Your task to perform on an android device: Clear the shopping cart on costco.com. Add "lenovo thinkpad" to the cart on costco.com, then select checkout. Image 0: 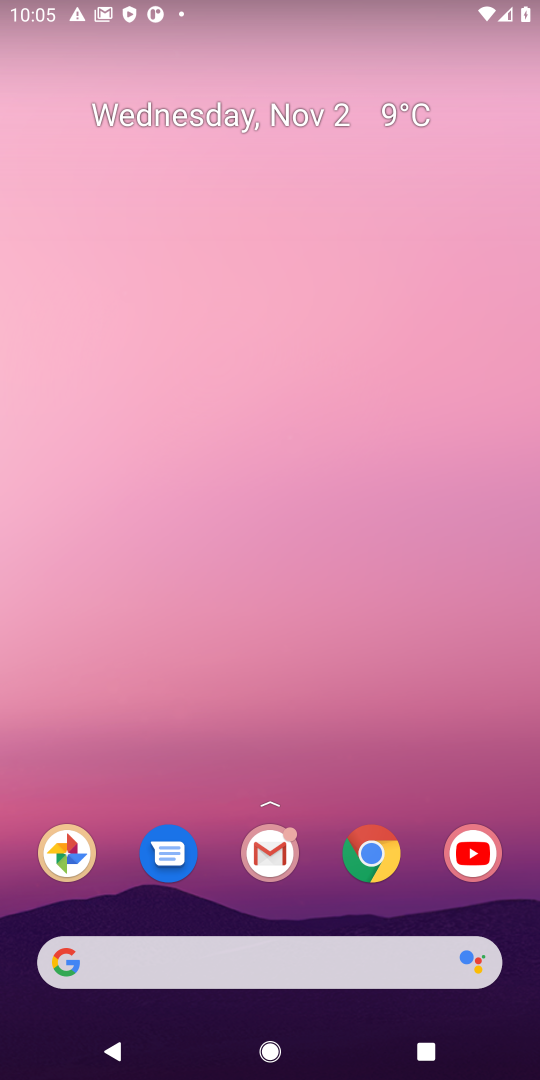
Step 0: click (371, 850)
Your task to perform on an android device: Clear the shopping cart on costco.com. Add "lenovo thinkpad" to the cart on costco.com, then select checkout. Image 1: 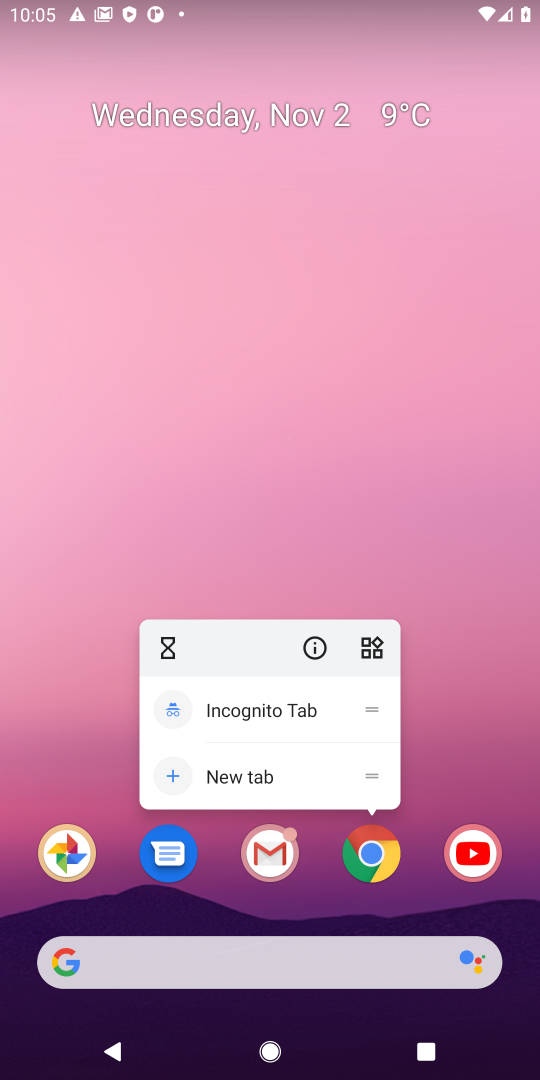
Step 1: click (366, 857)
Your task to perform on an android device: Clear the shopping cart on costco.com. Add "lenovo thinkpad" to the cart on costco.com, then select checkout. Image 2: 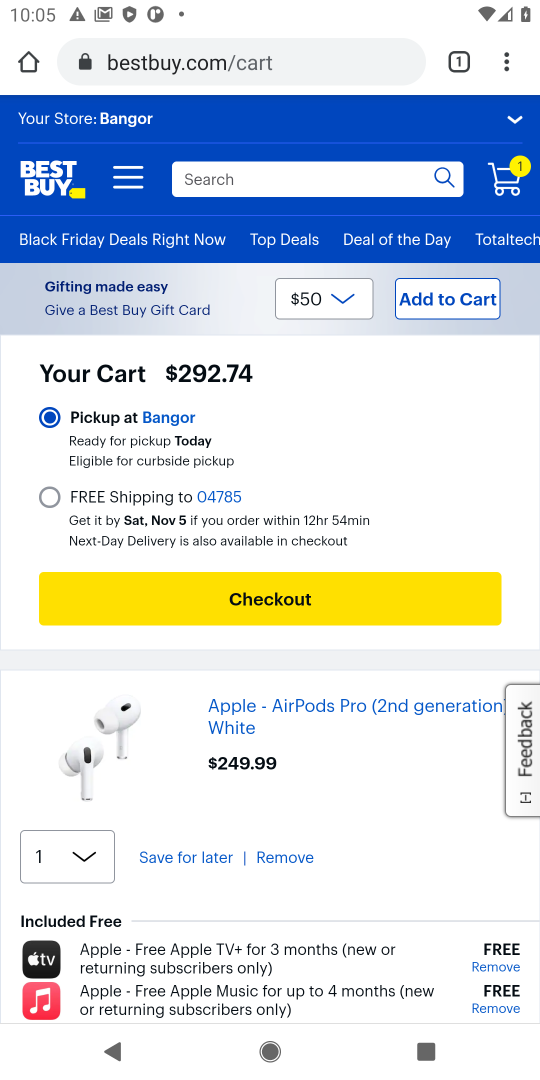
Step 2: click (281, 55)
Your task to perform on an android device: Clear the shopping cart on costco.com. Add "lenovo thinkpad" to the cart on costco.com, then select checkout. Image 3: 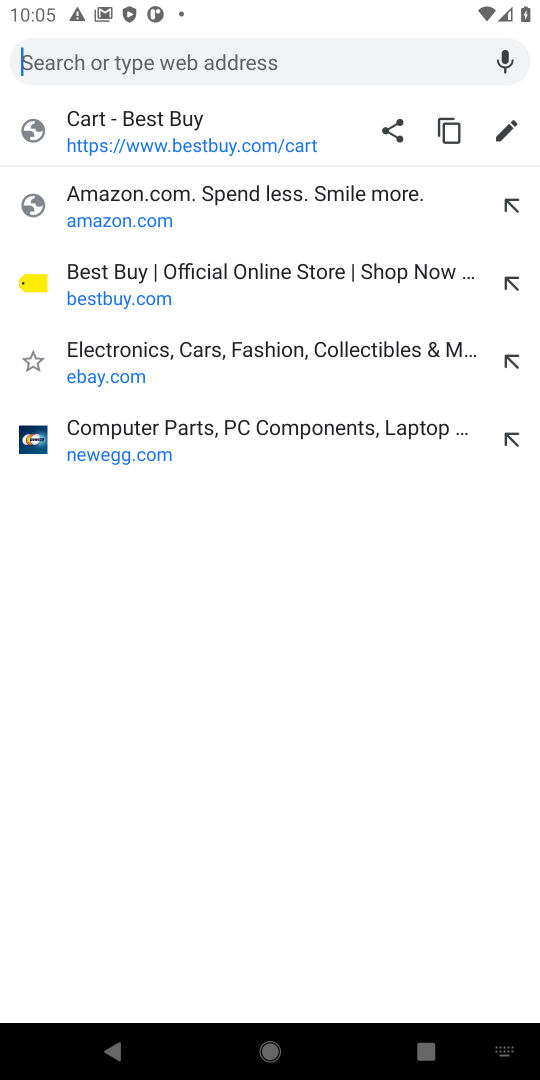
Step 3: type "costco.com"
Your task to perform on an android device: Clear the shopping cart on costco.com. Add "lenovo thinkpad" to the cart on costco.com, then select checkout. Image 4: 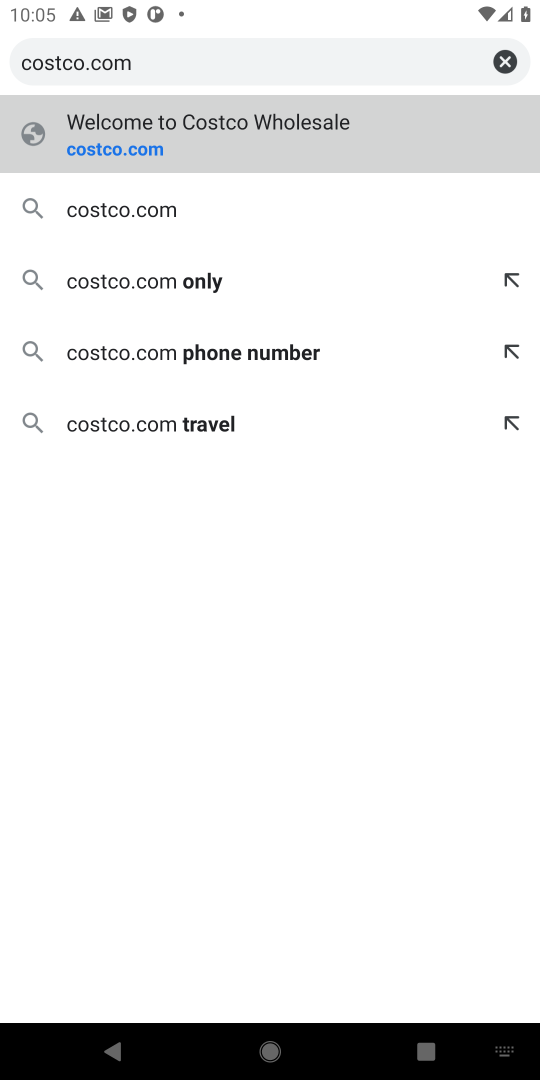
Step 4: press enter
Your task to perform on an android device: Clear the shopping cart on costco.com. Add "lenovo thinkpad" to the cart on costco.com, then select checkout. Image 5: 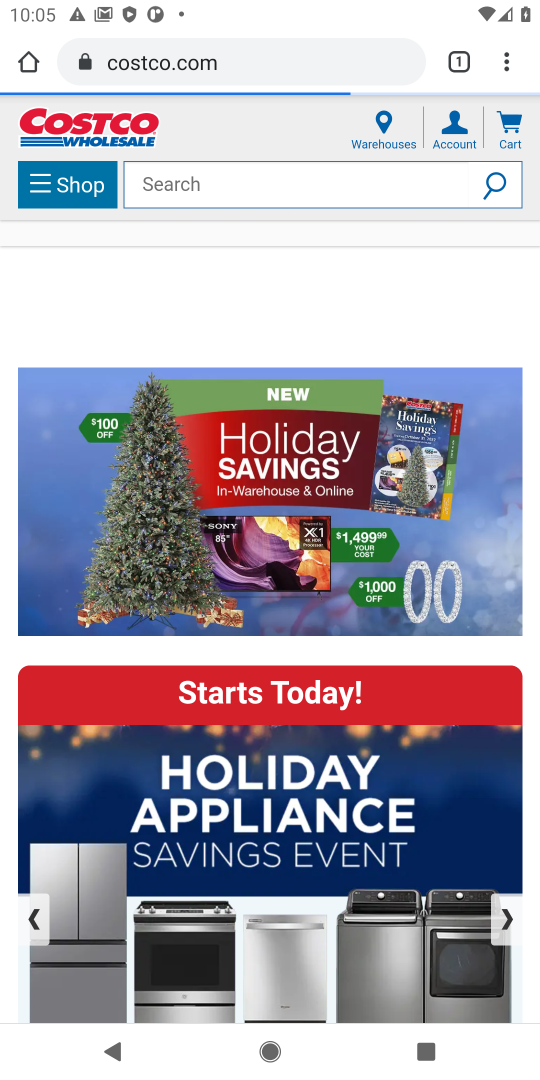
Step 5: click (229, 189)
Your task to perform on an android device: Clear the shopping cart on costco.com. Add "lenovo thinkpad" to the cart on costco.com, then select checkout. Image 6: 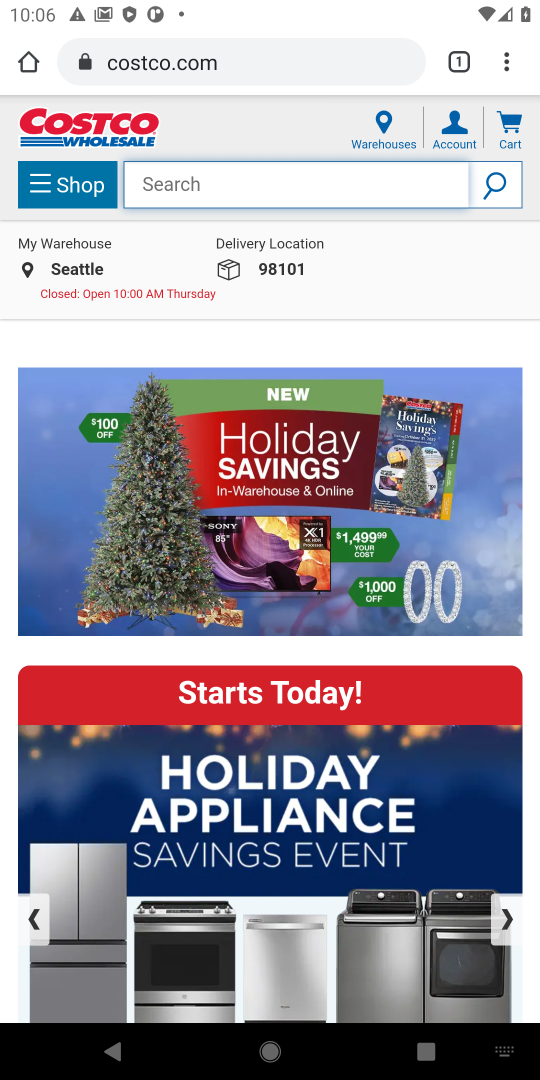
Step 6: type "lenovo thinkpad"
Your task to perform on an android device: Clear the shopping cart on costco.com. Add "lenovo thinkpad" to the cart on costco.com, then select checkout. Image 7: 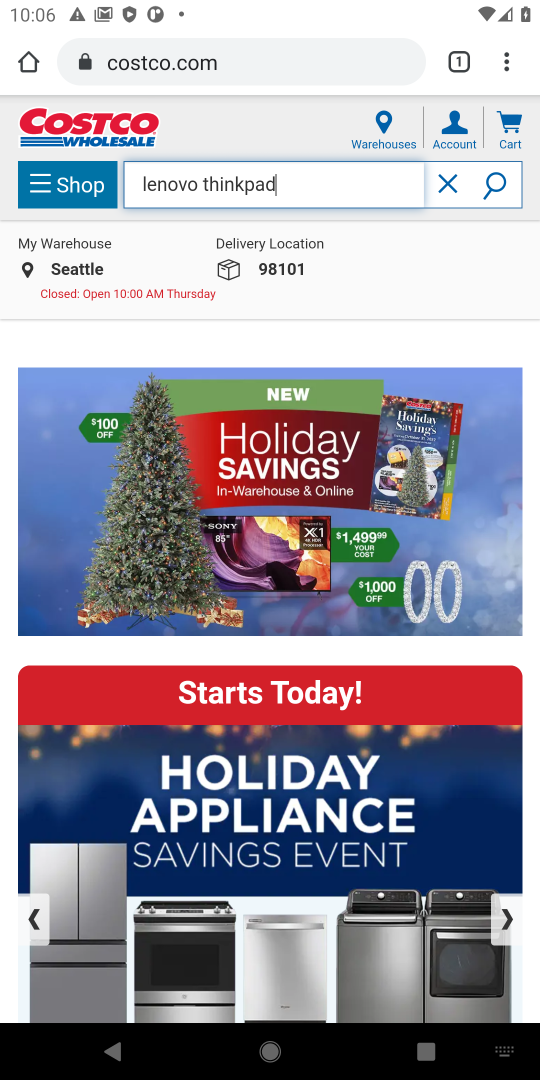
Step 7: press enter
Your task to perform on an android device: Clear the shopping cart on costco.com. Add "lenovo thinkpad" to the cart on costco.com, then select checkout. Image 8: 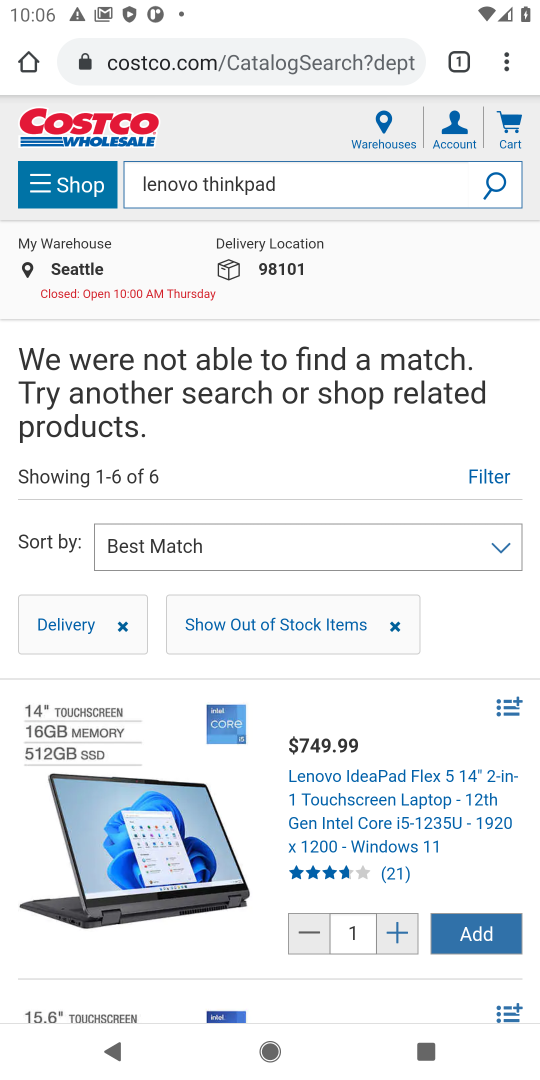
Step 8: task complete